Your task to perform on an android device: Toggle the flashlight Image 0: 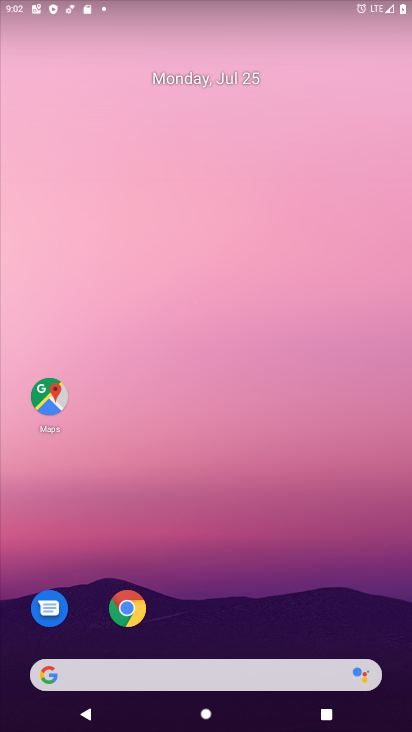
Step 0: drag from (238, 725) to (245, 351)
Your task to perform on an android device: Toggle the flashlight Image 1: 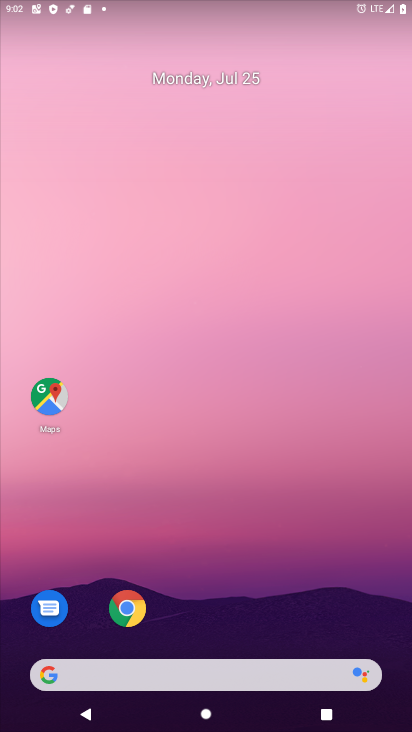
Step 1: drag from (224, 722) to (225, 130)
Your task to perform on an android device: Toggle the flashlight Image 2: 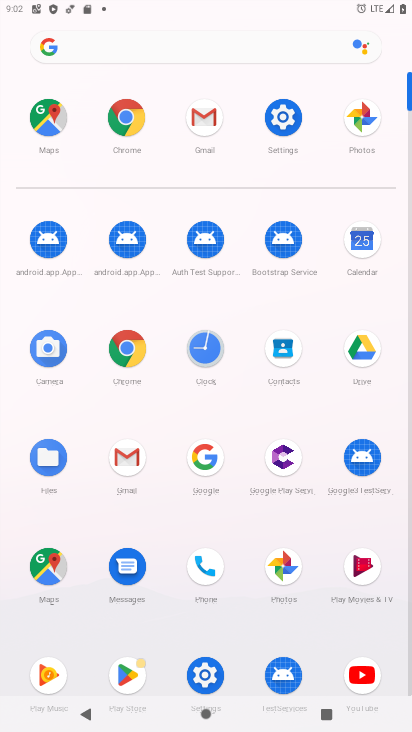
Step 2: click (282, 120)
Your task to perform on an android device: Toggle the flashlight Image 3: 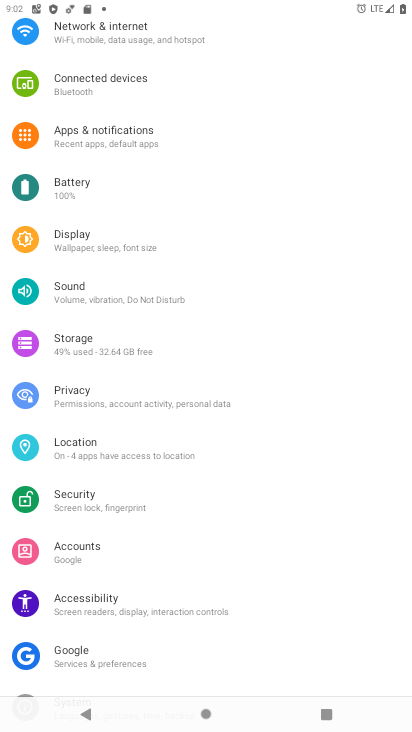
Step 3: task complete